Your task to perform on an android device: turn on sleep mode Image 0: 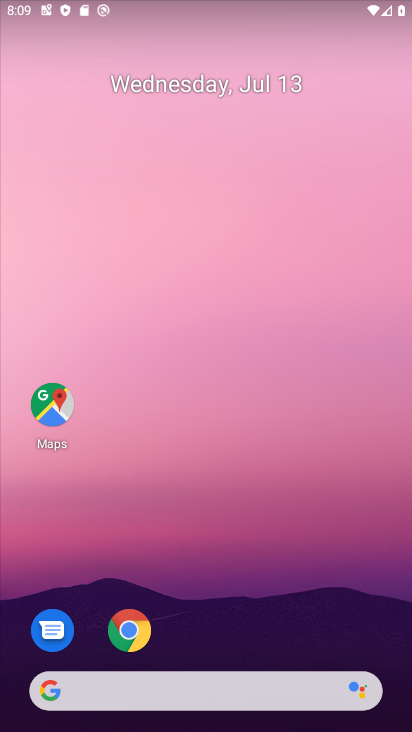
Step 0: drag from (345, 610) to (347, 124)
Your task to perform on an android device: turn on sleep mode Image 1: 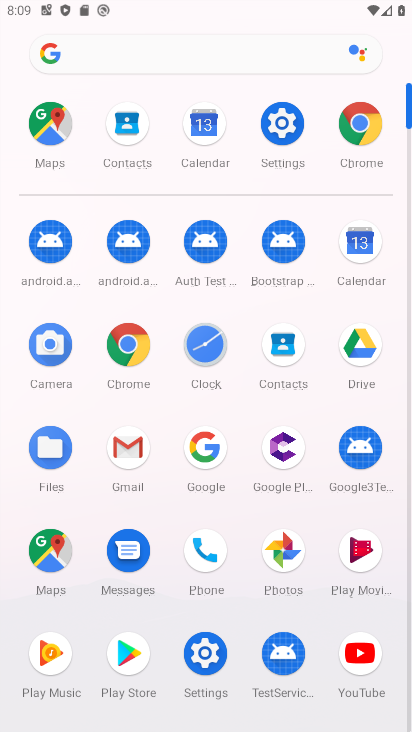
Step 1: click (284, 132)
Your task to perform on an android device: turn on sleep mode Image 2: 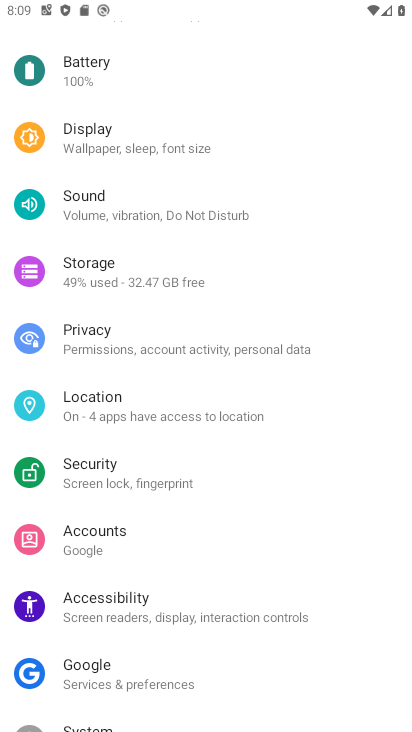
Step 2: drag from (356, 430) to (367, 352)
Your task to perform on an android device: turn on sleep mode Image 3: 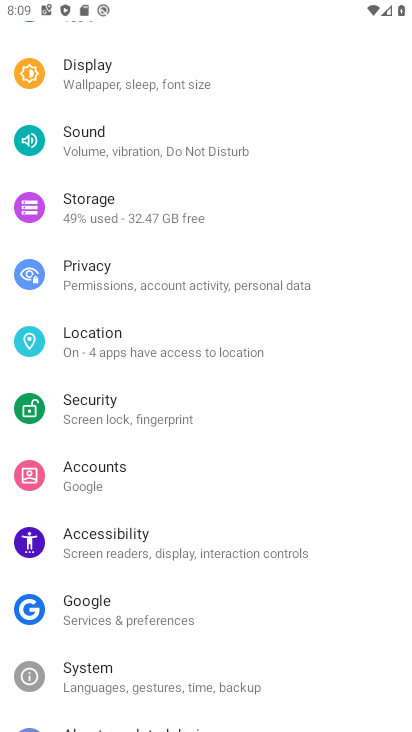
Step 3: drag from (355, 454) to (350, 341)
Your task to perform on an android device: turn on sleep mode Image 4: 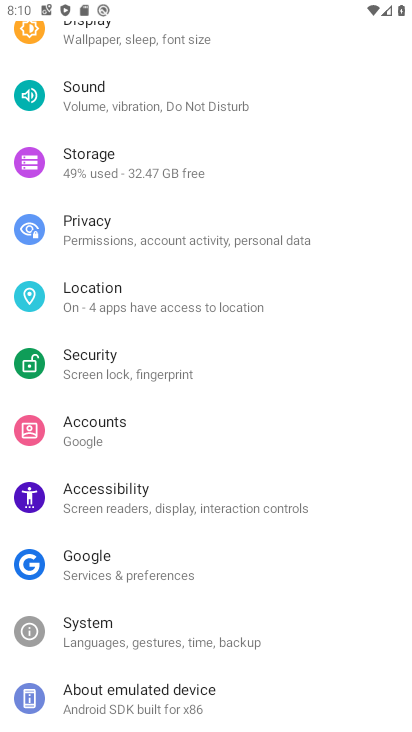
Step 4: drag from (342, 325) to (342, 395)
Your task to perform on an android device: turn on sleep mode Image 5: 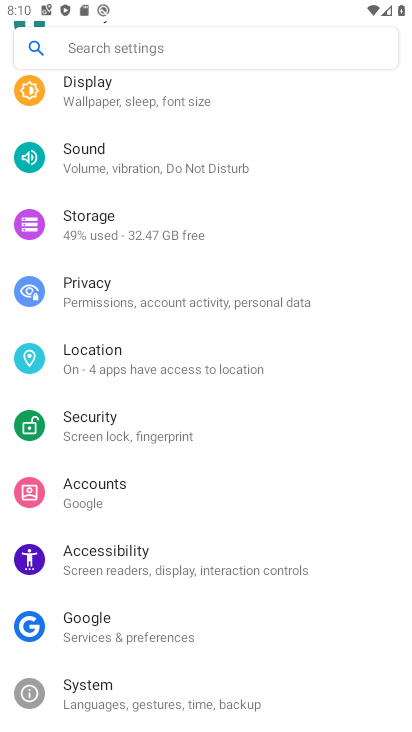
Step 5: drag from (342, 323) to (338, 412)
Your task to perform on an android device: turn on sleep mode Image 6: 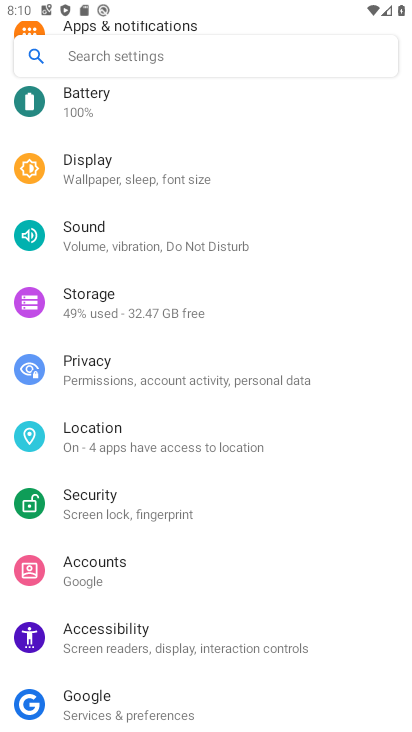
Step 6: drag from (338, 331) to (339, 425)
Your task to perform on an android device: turn on sleep mode Image 7: 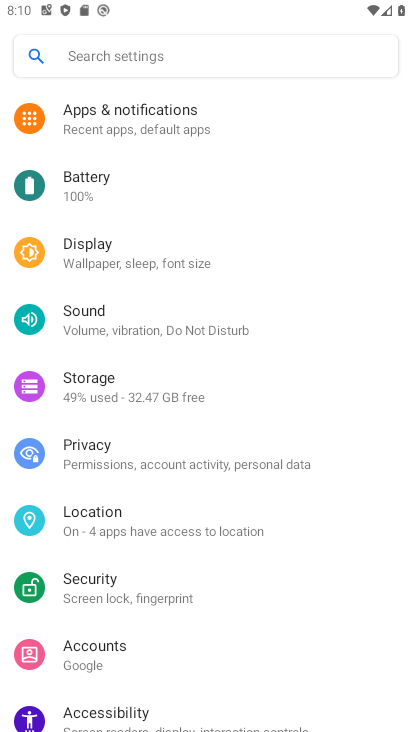
Step 7: drag from (346, 264) to (334, 440)
Your task to perform on an android device: turn on sleep mode Image 8: 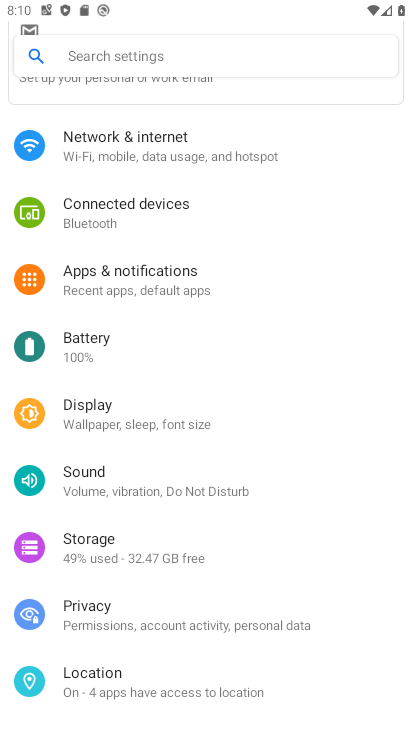
Step 8: drag from (328, 292) to (310, 493)
Your task to perform on an android device: turn on sleep mode Image 9: 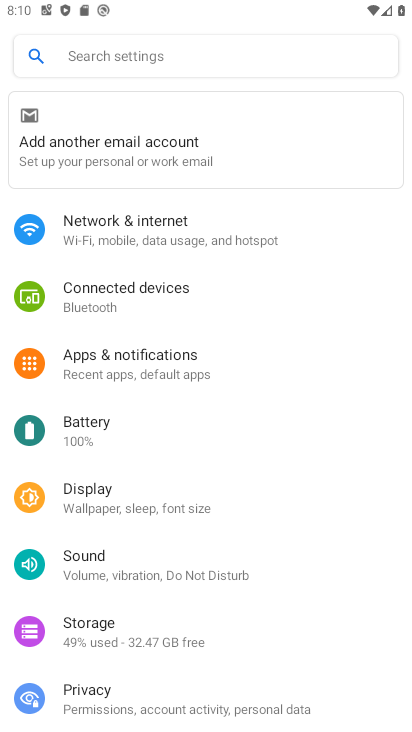
Step 9: click (201, 497)
Your task to perform on an android device: turn on sleep mode Image 10: 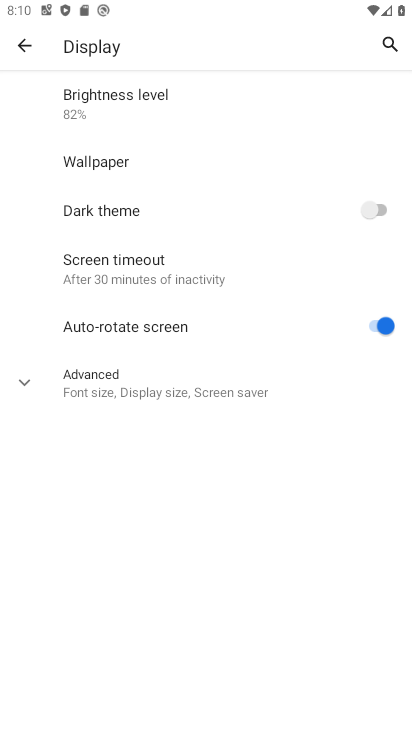
Step 10: click (248, 393)
Your task to perform on an android device: turn on sleep mode Image 11: 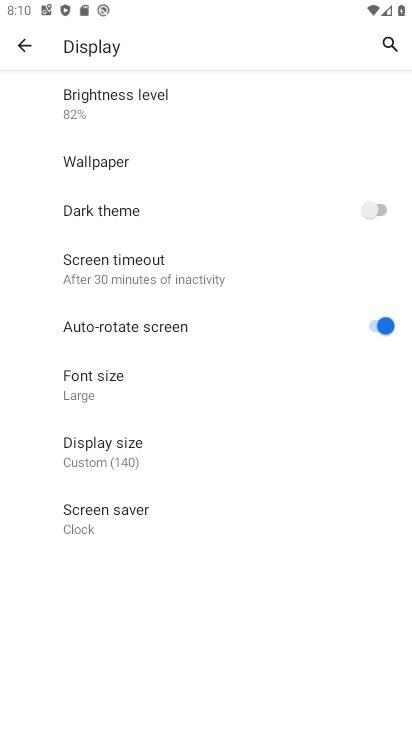
Step 11: task complete